Your task to perform on an android device: turn off javascript in the chrome app Image 0: 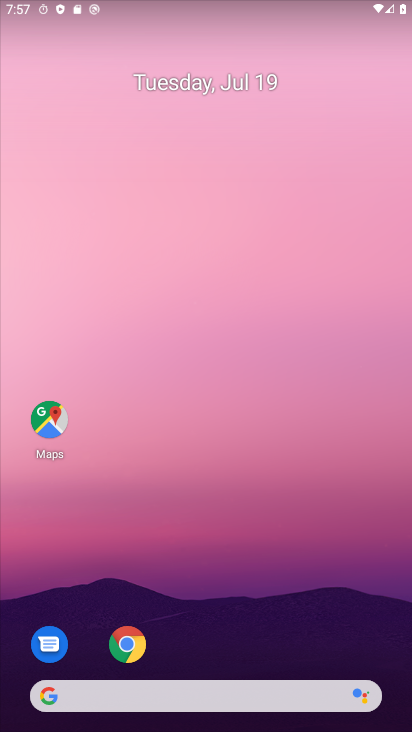
Step 0: click (128, 647)
Your task to perform on an android device: turn off javascript in the chrome app Image 1: 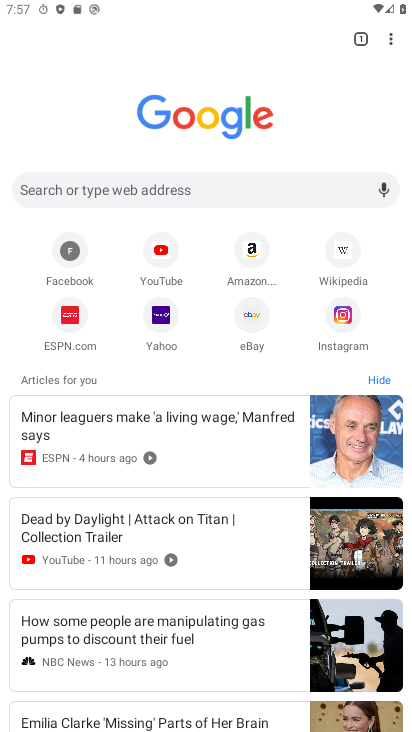
Step 1: click (389, 40)
Your task to perform on an android device: turn off javascript in the chrome app Image 2: 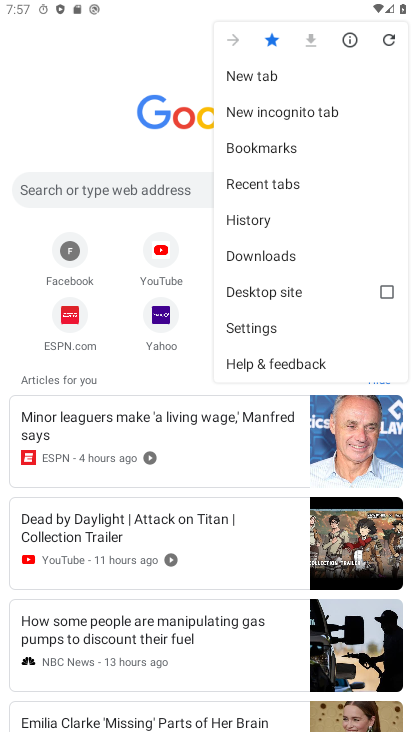
Step 2: click (255, 329)
Your task to perform on an android device: turn off javascript in the chrome app Image 3: 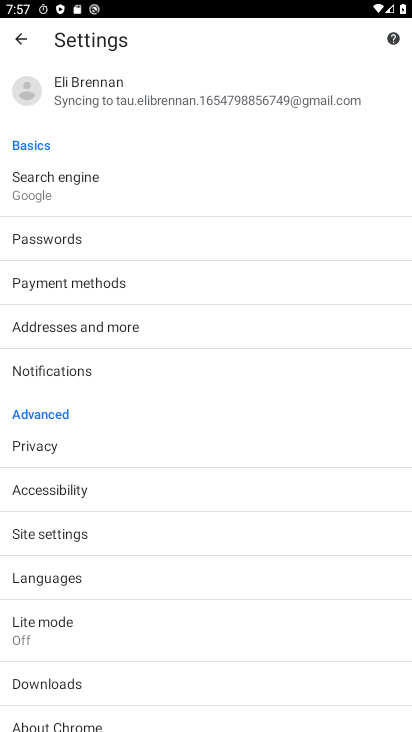
Step 3: click (44, 534)
Your task to perform on an android device: turn off javascript in the chrome app Image 4: 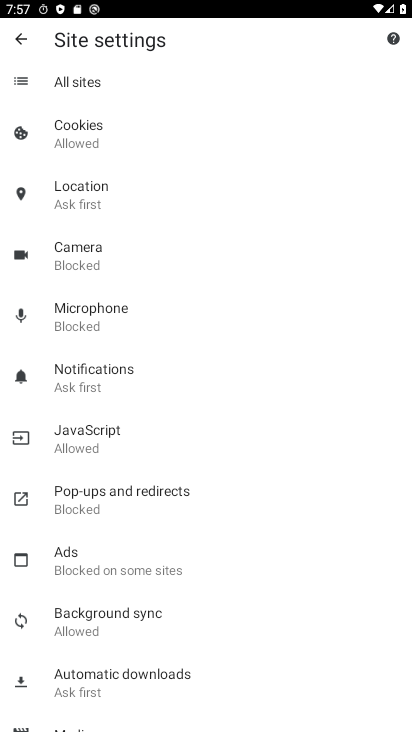
Step 4: click (89, 439)
Your task to perform on an android device: turn off javascript in the chrome app Image 5: 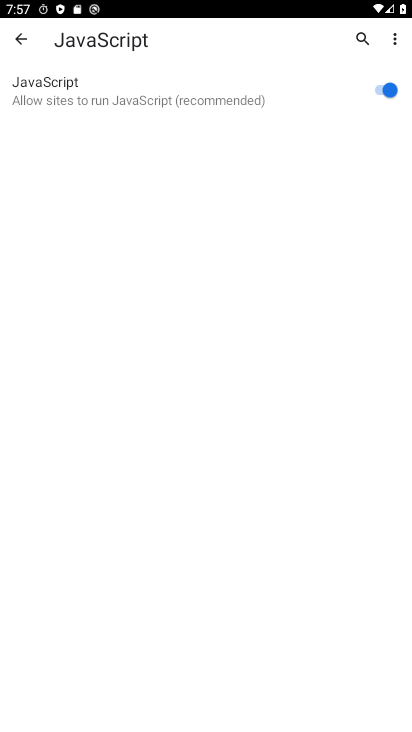
Step 5: click (390, 91)
Your task to perform on an android device: turn off javascript in the chrome app Image 6: 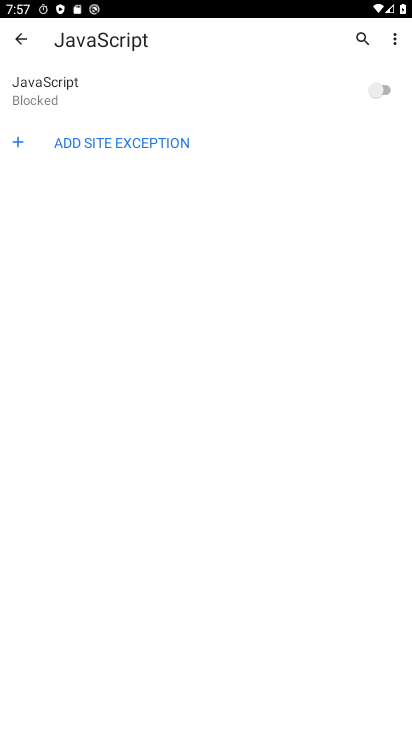
Step 6: task complete